Your task to perform on an android device: Add "razer naga" to the cart on amazon.com, then select checkout. Image 0: 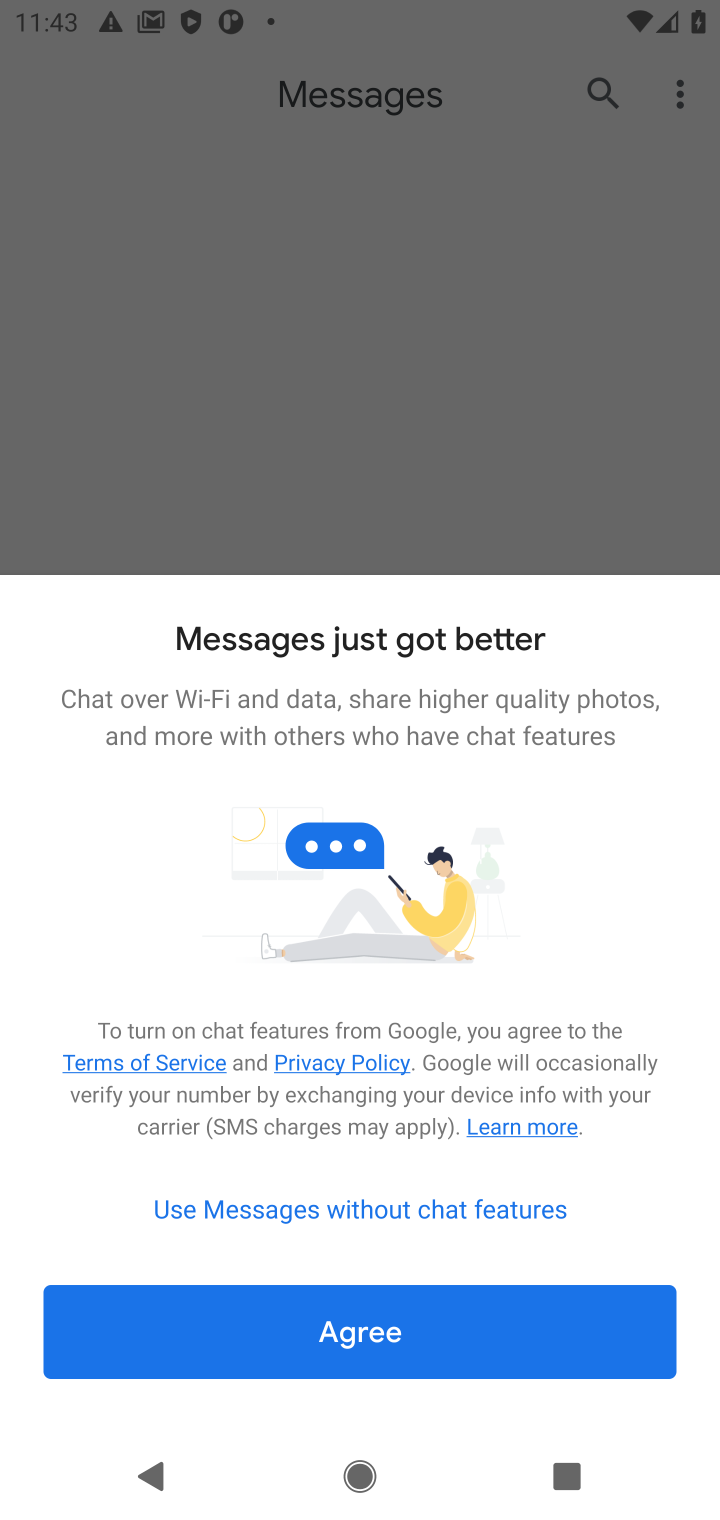
Step 0: press home button
Your task to perform on an android device: Add "razer naga" to the cart on amazon.com, then select checkout. Image 1: 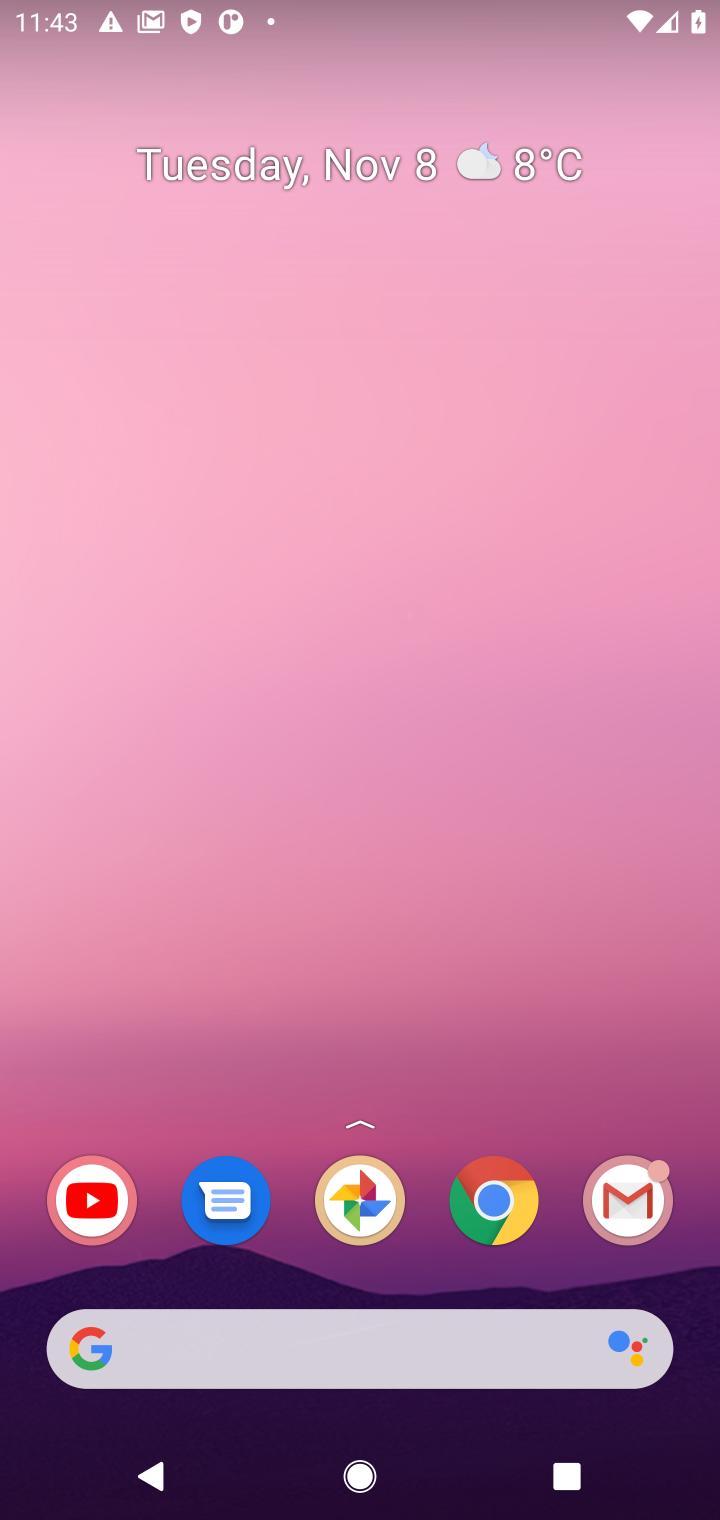
Step 1: click (339, 1368)
Your task to perform on an android device: Add "razer naga" to the cart on amazon.com, then select checkout. Image 2: 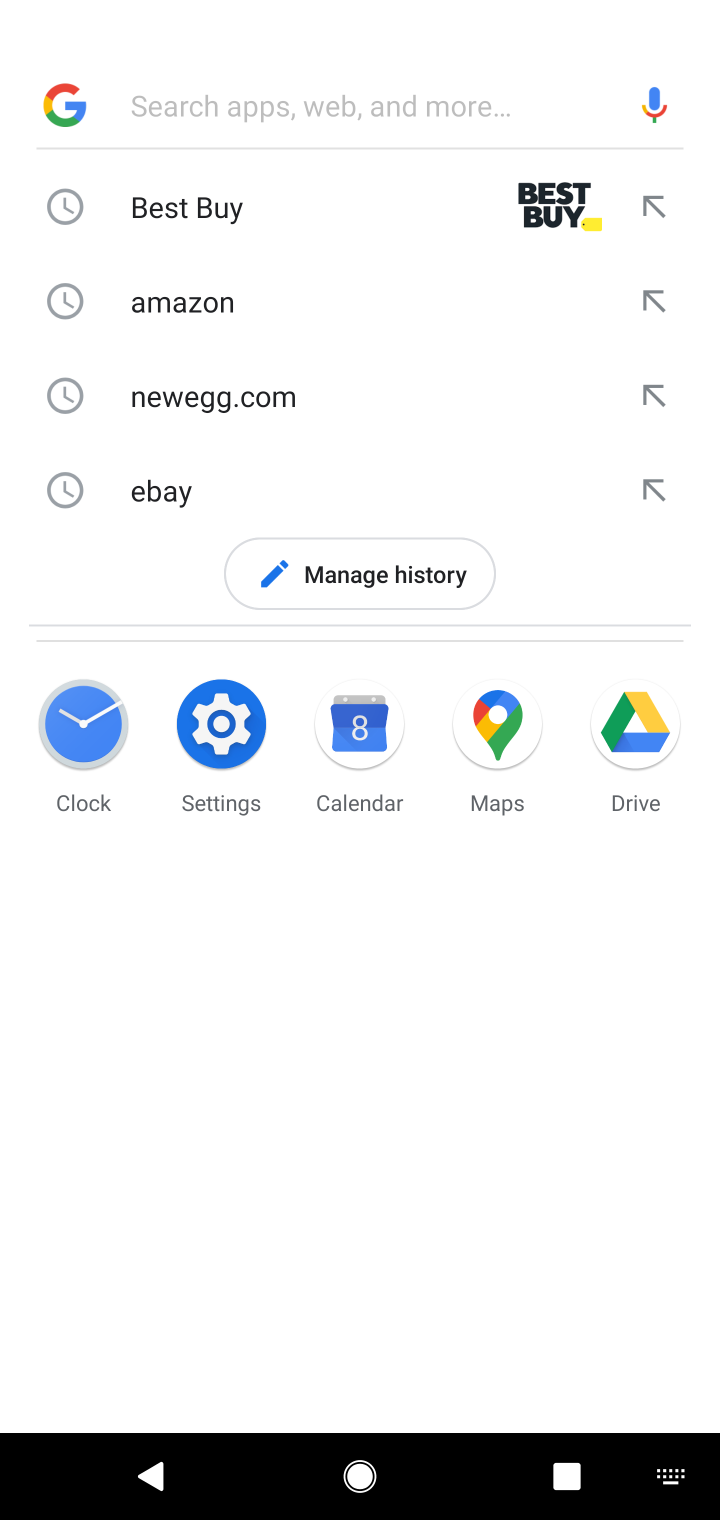
Step 2: click (161, 298)
Your task to perform on an android device: Add "razer naga" to the cart on amazon.com, then select checkout. Image 3: 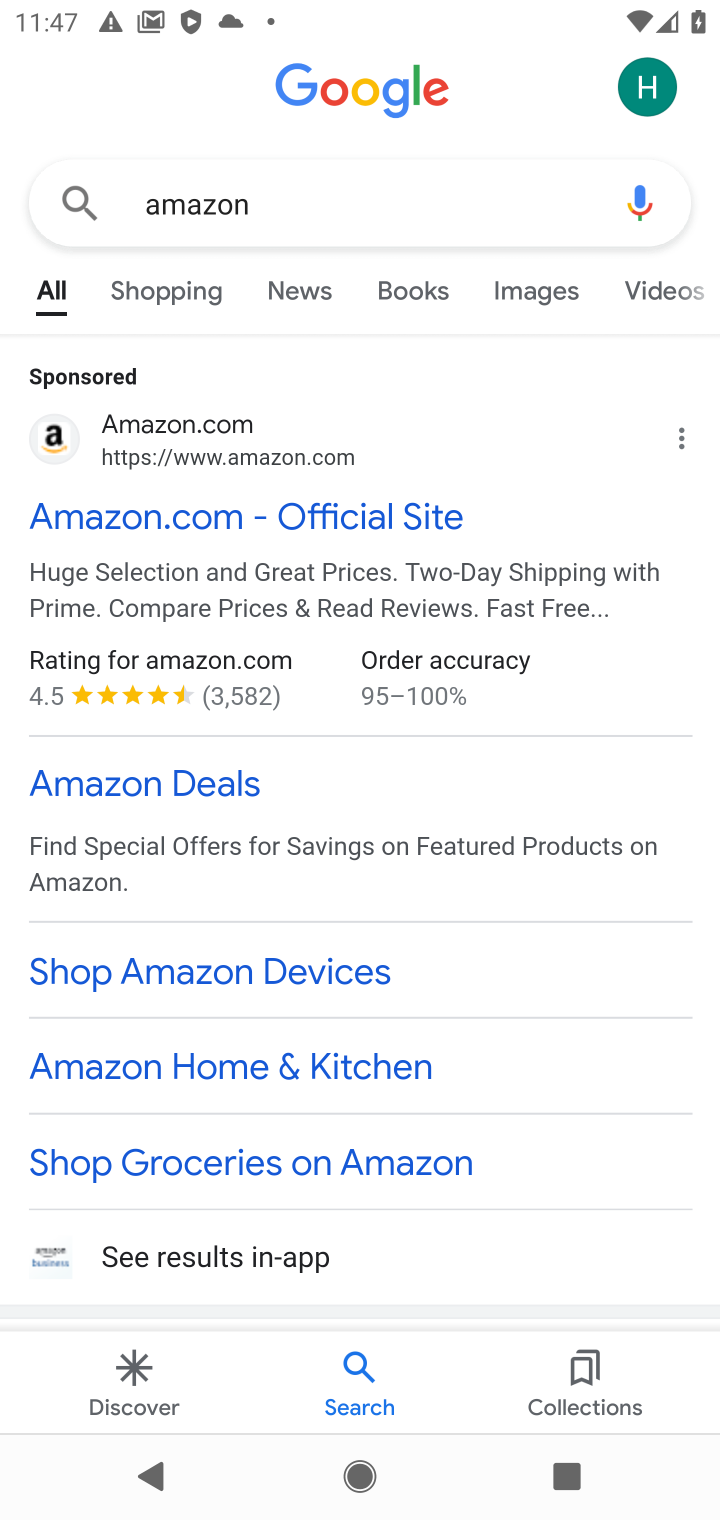
Step 3: click (257, 525)
Your task to perform on an android device: Add "razer naga" to the cart on amazon.com, then select checkout. Image 4: 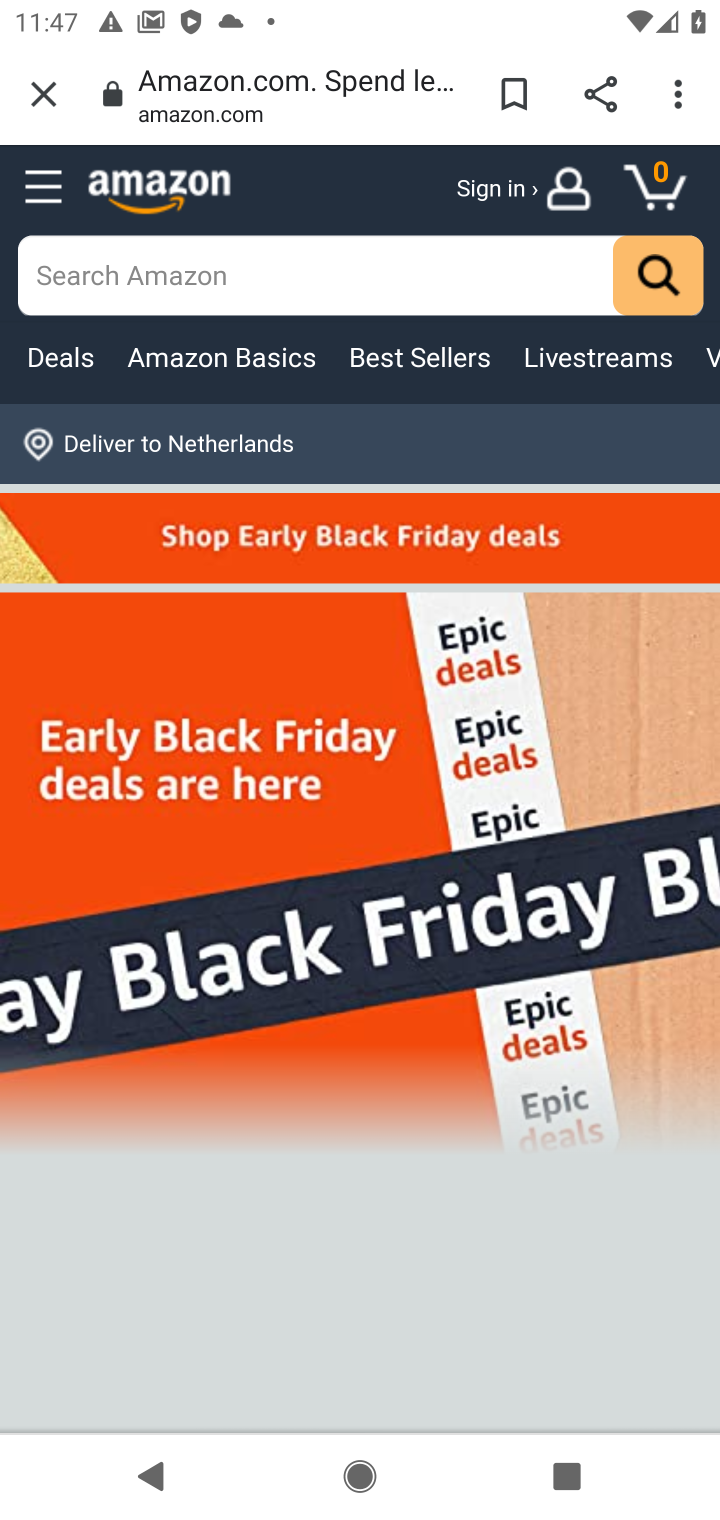
Step 4: task complete